Your task to perform on an android device: check battery use Image 0: 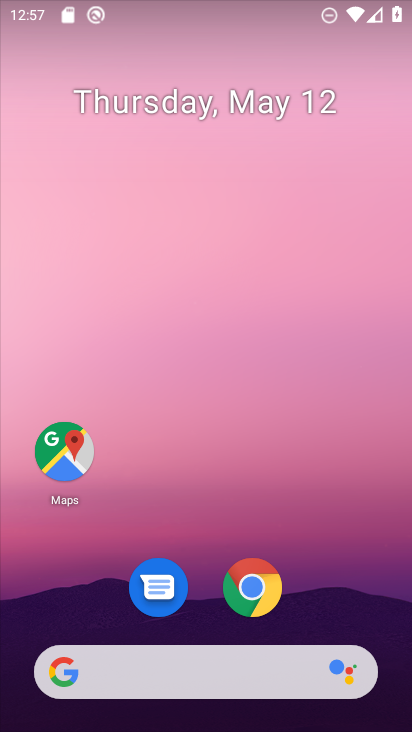
Step 0: drag from (333, 576) to (276, 61)
Your task to perform on an android device: check battery use Image 1: 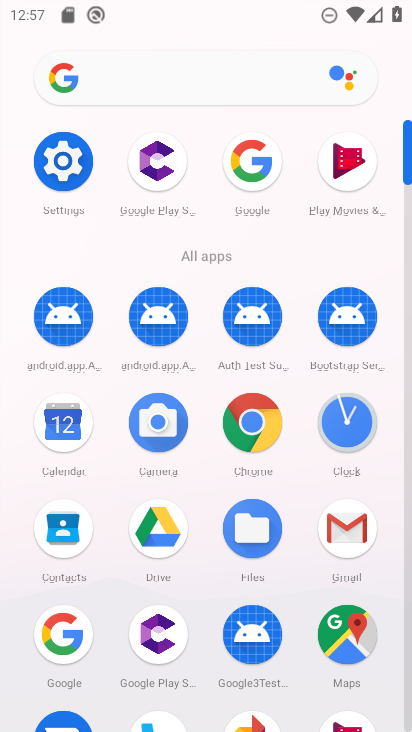
Step 1: click (65, 160)
Your task to perform on an android device: check battery use Image 2: 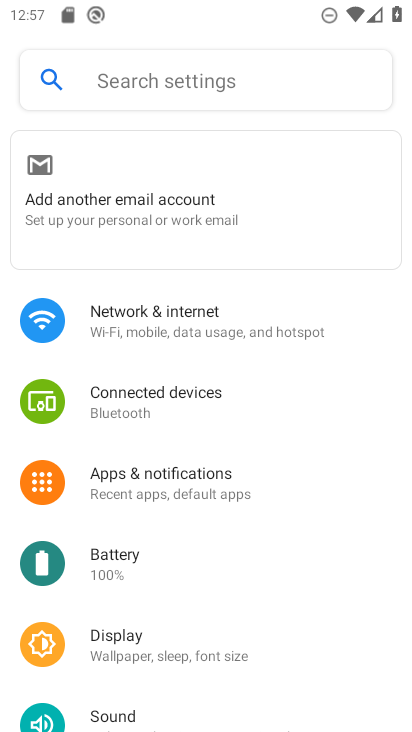
Step 2: click (122, 562)
Your task to perform on an android device: check battery use Image 3: 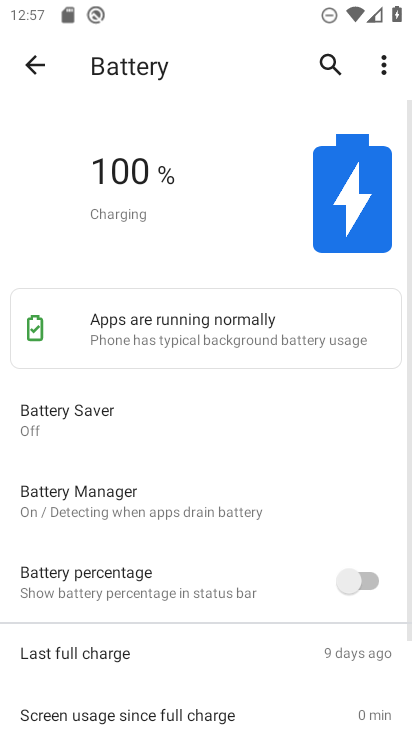
Step 3: click (385, 67)
Your task to perform on an android device: check battery use Image 4: 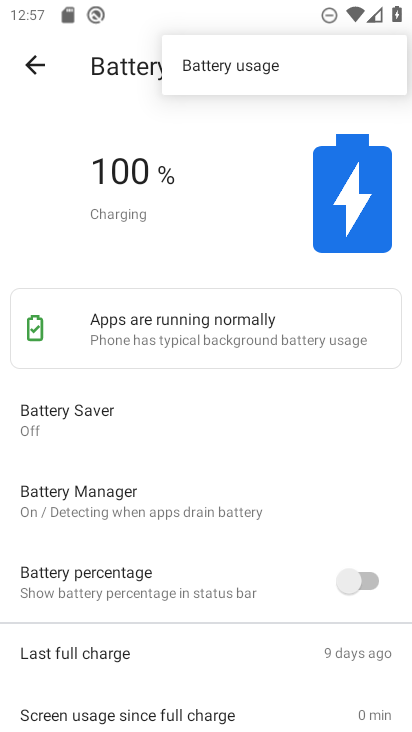
Step 4: click (269, 64)
Your task to perform on an android device: check battery use Image 5: 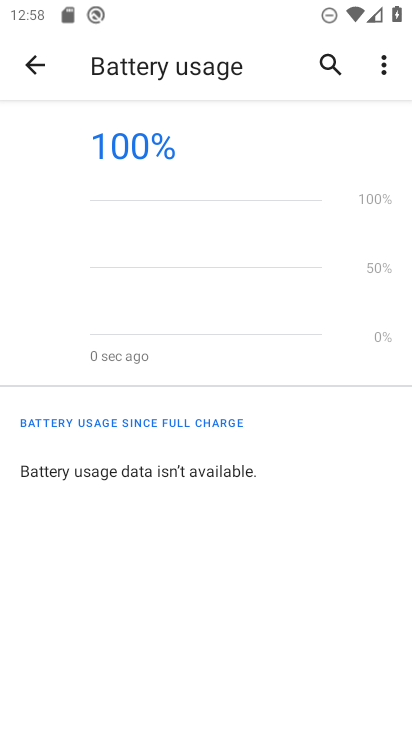
Step 5: task complete